Your task to perform on an android device: turn off wifi Image 0: 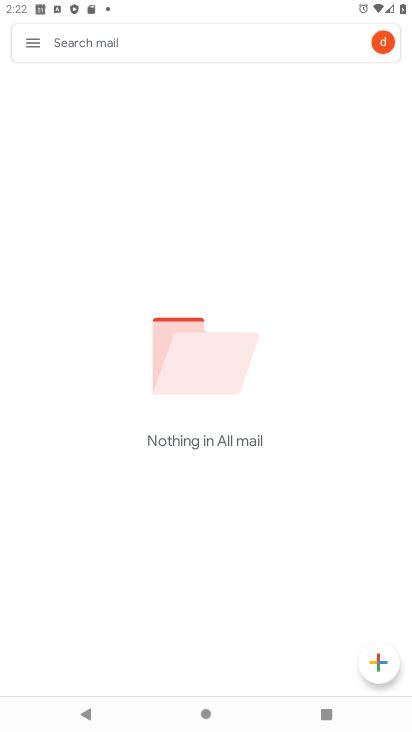
Step 0: press home button
Your task to perform on an android device: turn off wifi Image 1: 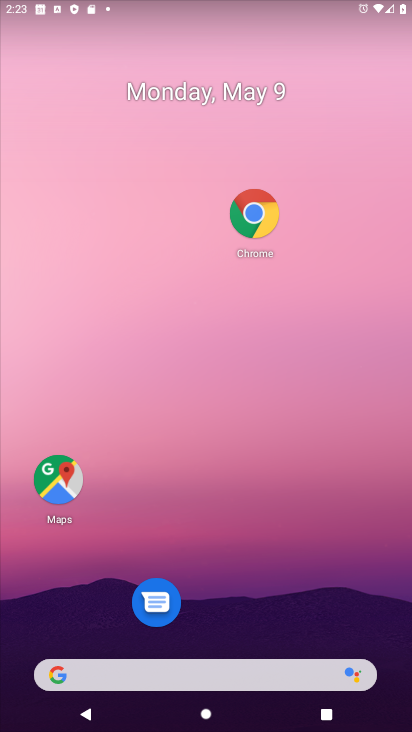
Step 1: drag from (296, 605) to (341, 25)
Your task to perform on an android device: turn off wifi Image 2: 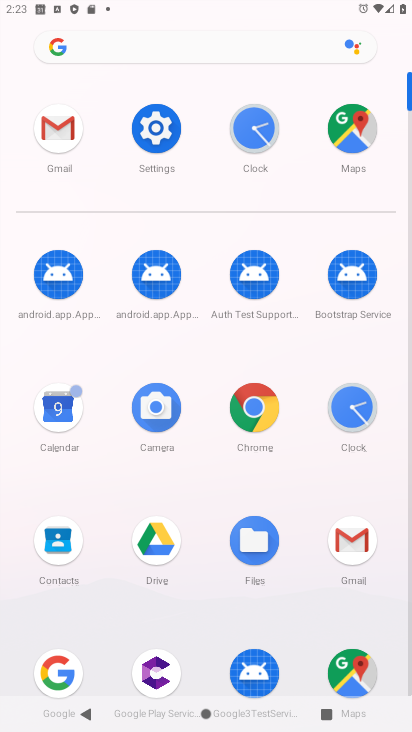
Step 2: click (162, 118)
Your task to perform on an android device: turn off wifi Image 3: 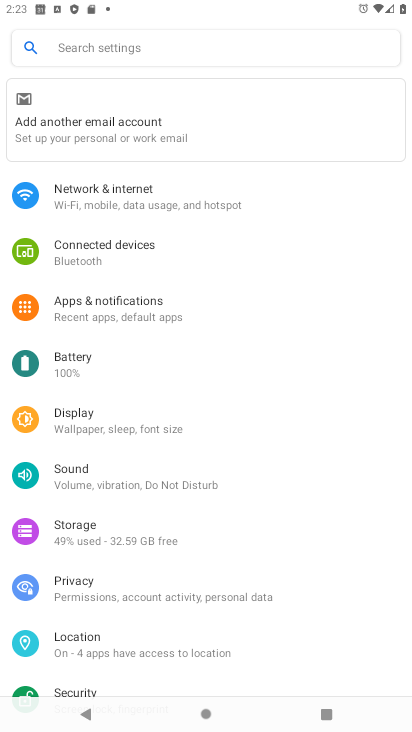
Step 3: click (95, 187)
Your task to perform on an android device: turn off wifi Image 4: 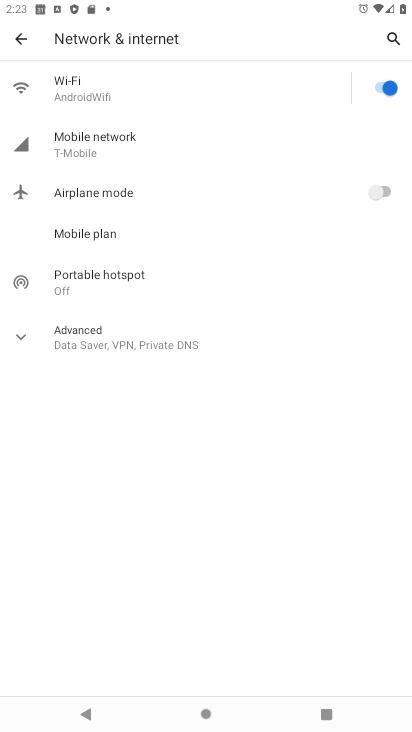
Step 4: click (377, 88)
Your task to perform on an android device: turn off wifi Image 5: 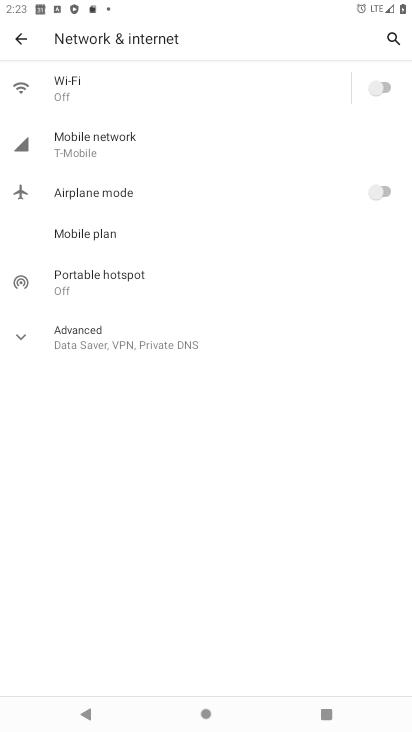
Step 5: task complete